Your task to perform on an android device: turn off smart reply in the gmail app Image 0: 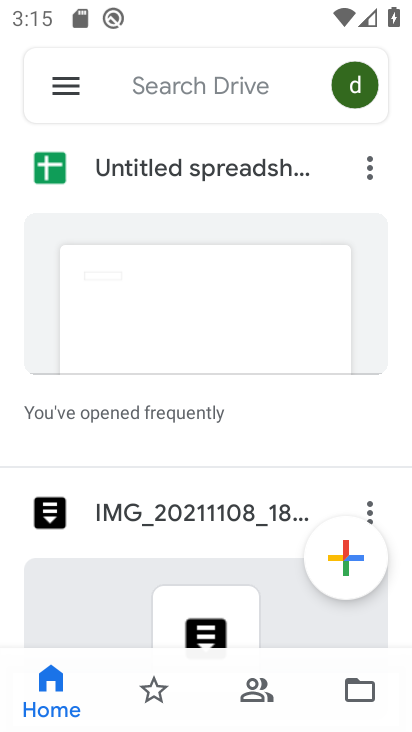
Step 0: press back button
Your task to perform on an android device: turn off smart reply in the gmail app Image 1: 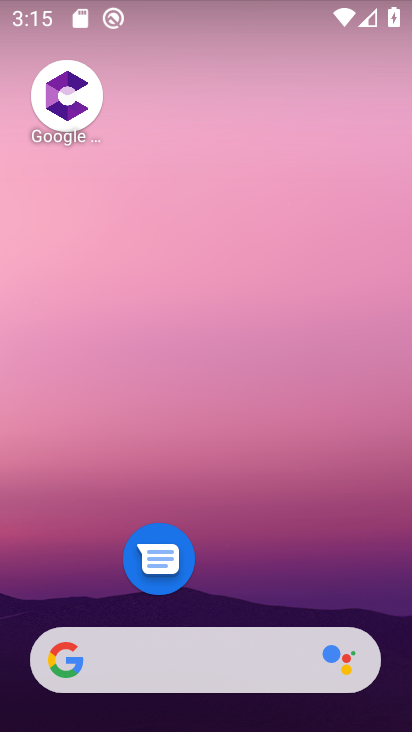
Step 1: drag from (292, 561) to (340, 50)
Your task to perform on an android device: turn off smart reply in the gmail app Image 2: 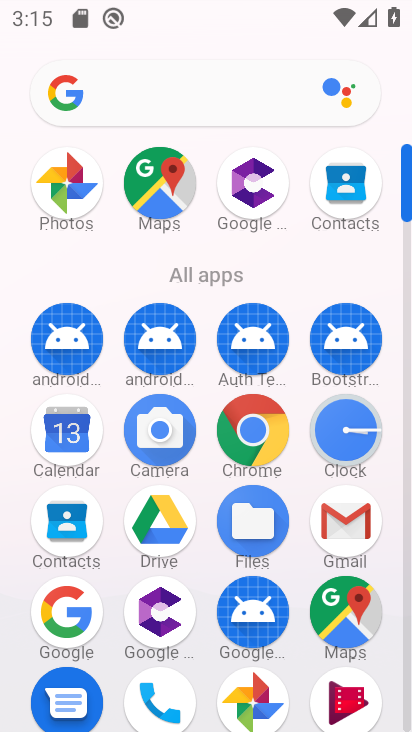
Step 2: click (345, 518)
Your task to perform on an android device: turn off smart reply in the gmail app Image 3: 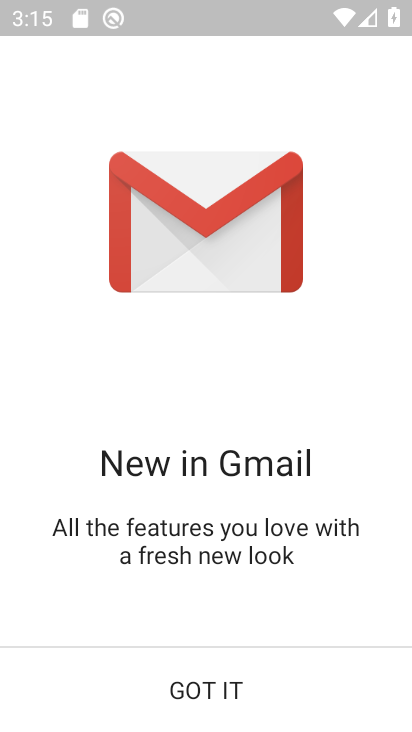
Step 3: click (200, 687)
Your task to perform on an android device: turn off smart reply in the gmail app Image 4: 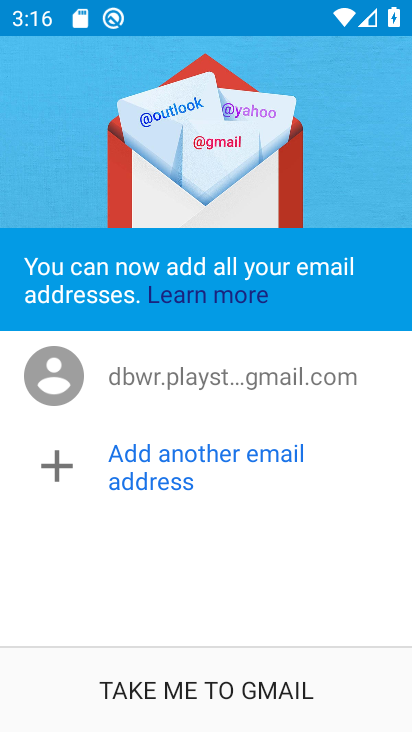
Step 4: click (205, 676)
Your task to perform on an android device: turn off smart reply in the gmail app Image 5: 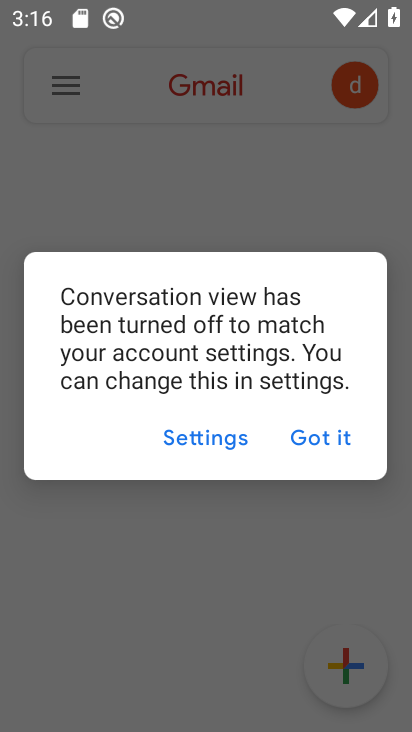
Step 5: click (288, 434)
Your task to perform on an android device: turn off smart reply in the gmail app Image 6: 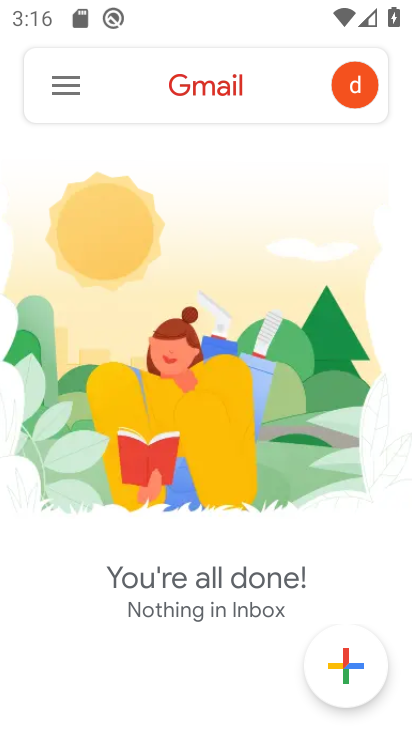
Step 6: click (53, 77)
Your task to perform on an android device: turn off smart reply in the gmail app Image 7: 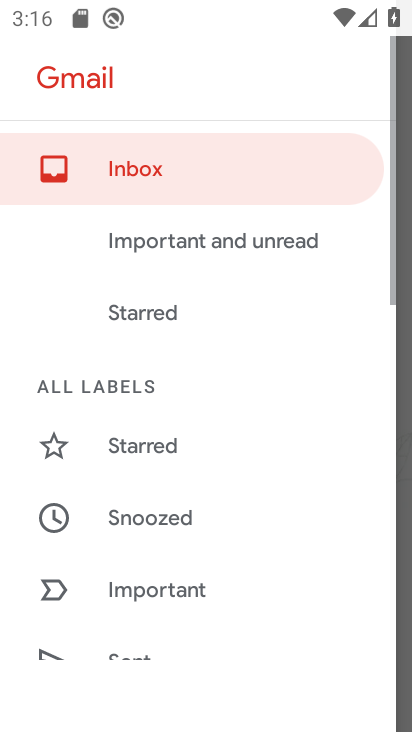
Step 7: drag from (157, 615) to (260, 16)
Your task to perform on an android device: turn off smart reply in the gmail app Image 8: 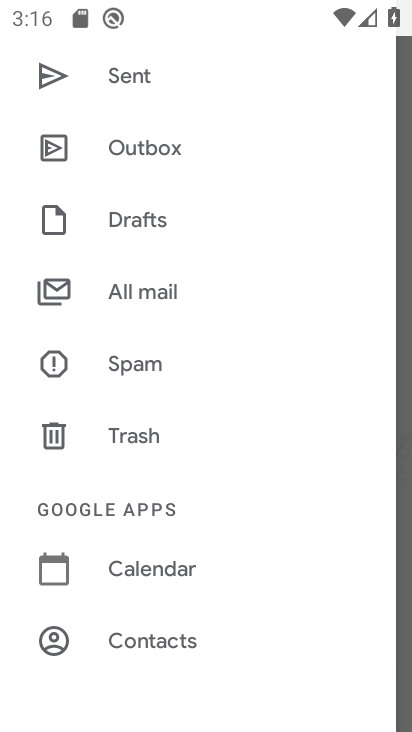
Step 8: drag from (149, 615) to (233, 41)
Your task to perform on an android device: turn off smart reply in the gmail app Image 9: 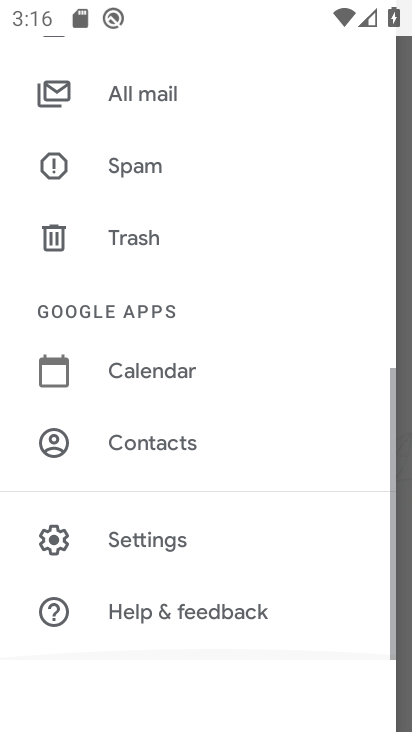
Step 9: click (163, 537)
Your task to perform on an android device: turn off smart reply in the gmail app Image 10: 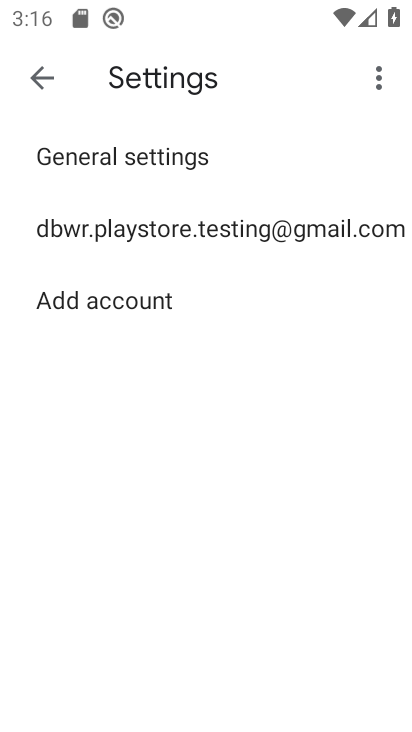
Step 10: click (110, 230)
Your task to perform on an android device: turn off smart reply in the gmail app Image 11: 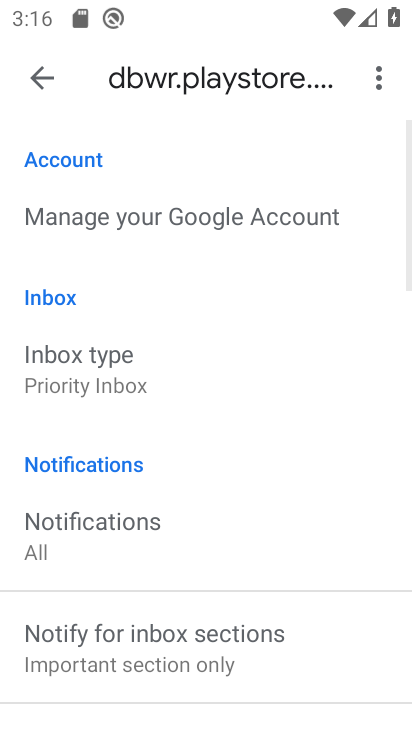
Step 11: drag from (164, 590) to (214, 24)
Your task to perform on an android device: turn off smart reply in the gmail app Image 12: 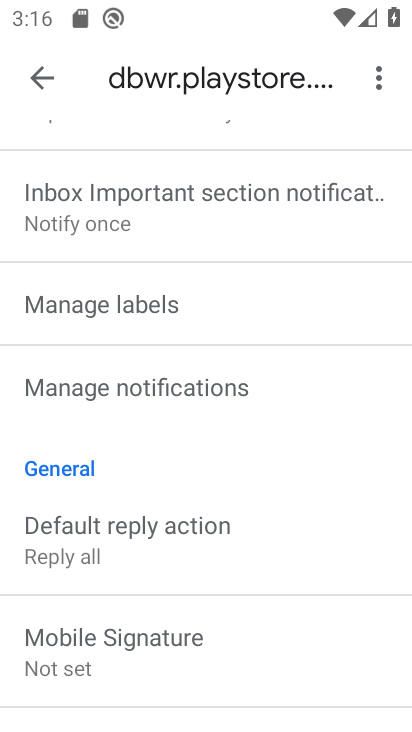
Step 12: drag from (126, 634) to (195, 99)
Your task to perform on an android device: turn off smart reply in the gmail app Image 13: 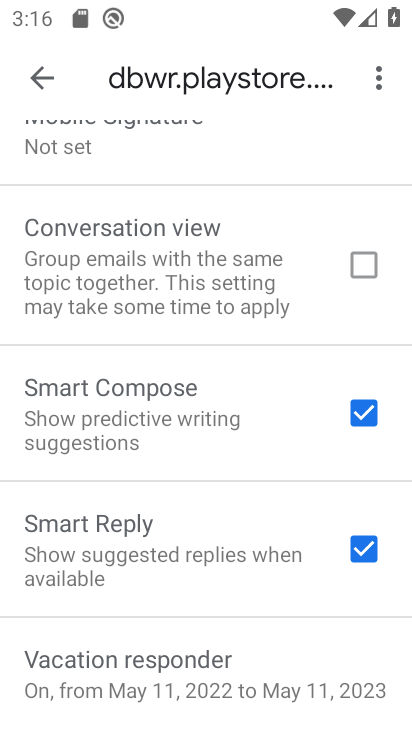
Step 13: click (364, 540)
Your task to perform on an android device: turn off smart reply in the gmail app Image 14: 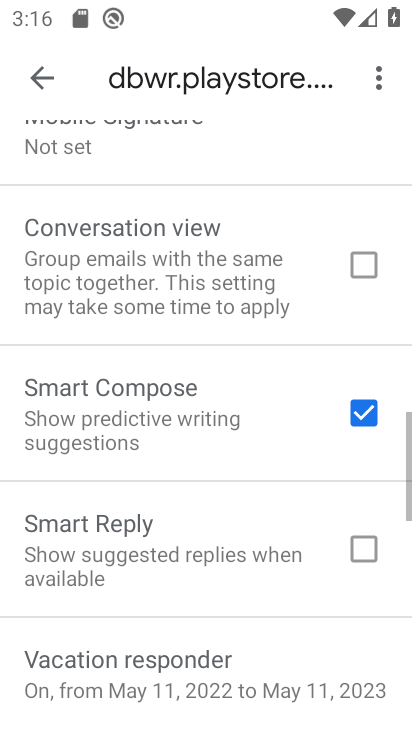
Step 14: task complete